Your task to perform on an android device: Is it going to rain today? Image 0: 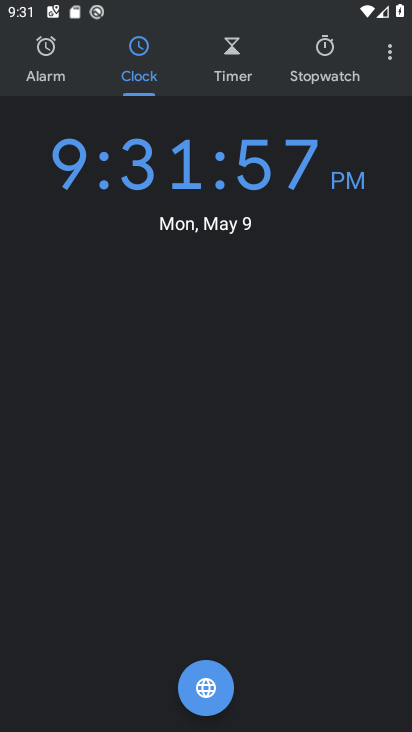
Step 0: press home button
Your task to perform on an android device: Is it going to rain today? Image 1: 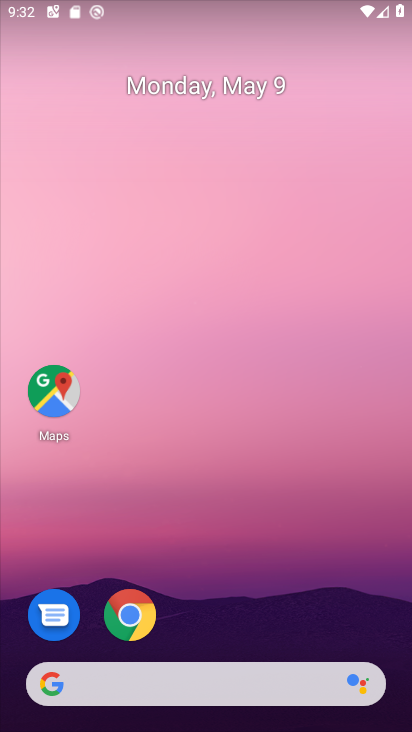
Step 1: drag from (247, 718) to (248, 151)
Your task to perform on an android device: Is it going to rain today? Image 2: 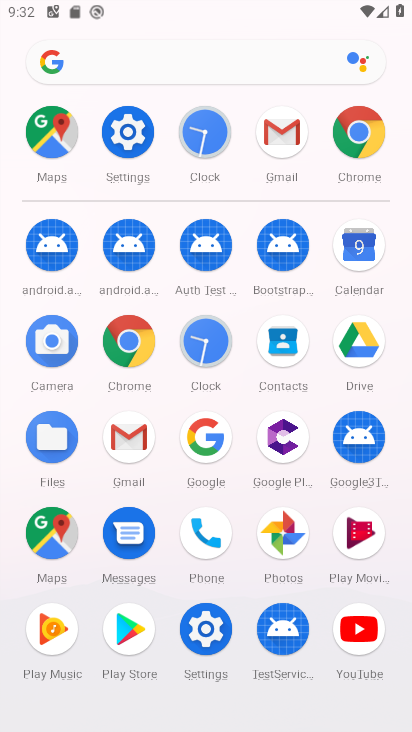
Step 2: click (172, 52)
Your task to perform on an android device: Is it going to rain today? Image 3: 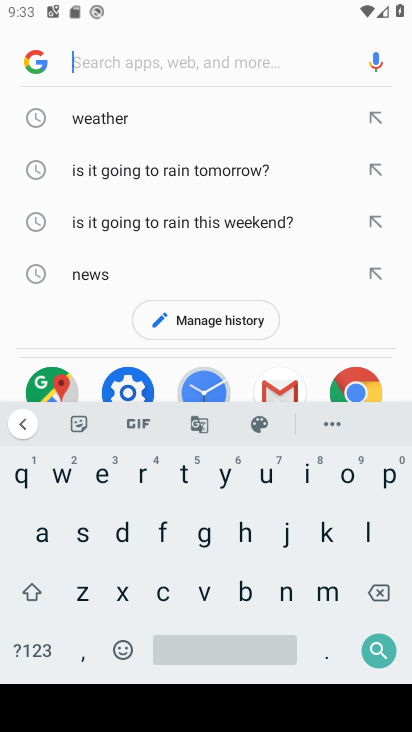
Step 3: click (115, 99)
Your task to perform on an android device: Is it going to rain today? Image 4: 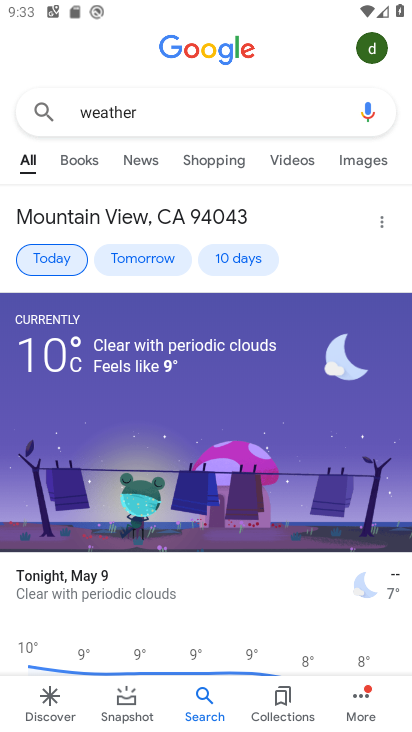
Step 4: task complete